Your task to perform on an android device: uninstall "Google Sheets" Image 0: 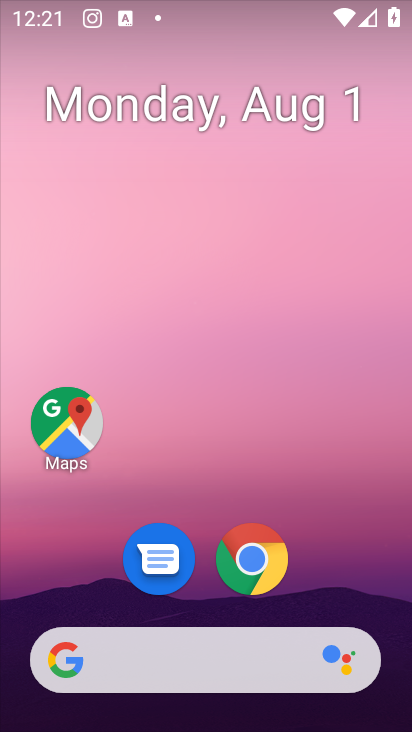
Step 0: drag from (83, 572) to (125, 140)
Your task to perform on an android device: uninstall "Google Sheets" Image 1: 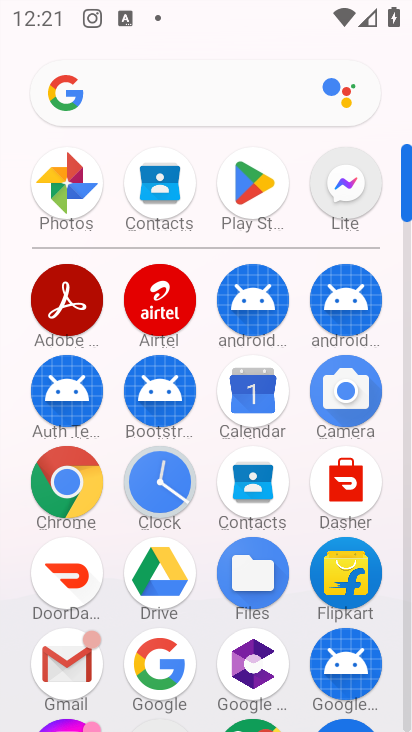
Step 1: click (271, 187)
Your task to perform on an android device: uninstall "Google Sheets" Image 2: 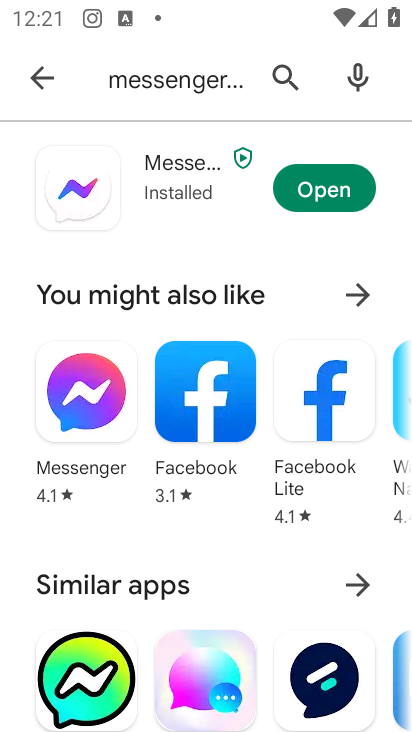
Step 2: click (299, 67)
Your task to perform on an android device: uninstall "Google Sheets" Image 3: 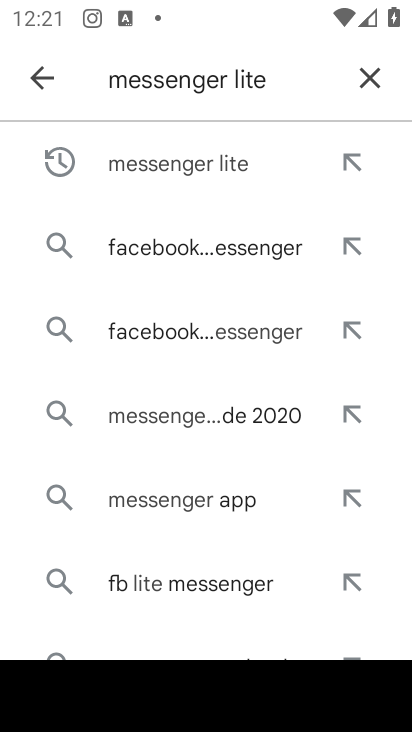
Step 3: click (380, 79)
Your task to perform on an android device: uninstall "Google Sheets" Image 4: 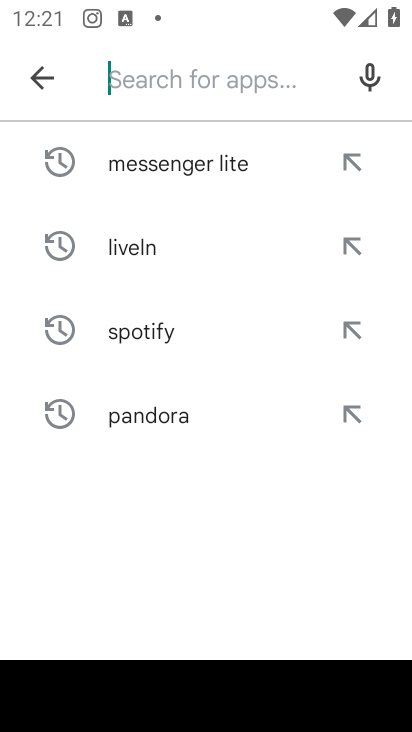
Step 4: click (163, 75)
Your task to perform on an android device: uninstall "Google Sheets" Image 5: 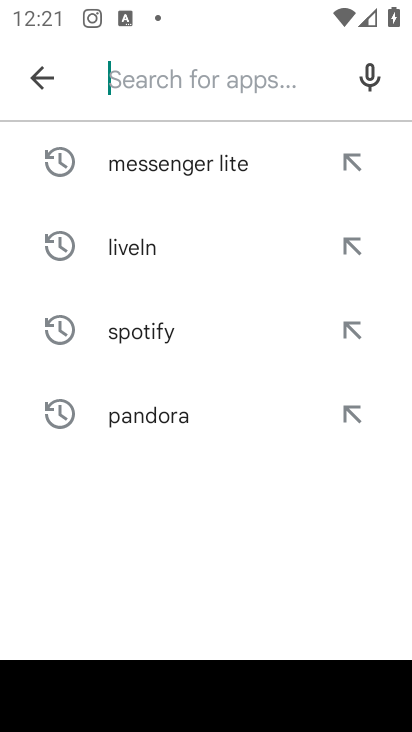
Step 5: type "google sheets"
Your task to perform on an android device: uninstall "Google Sheets" Image 6: 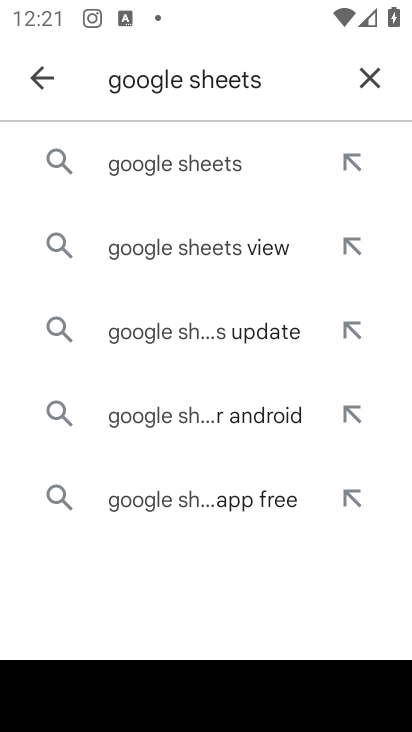
Step 6: click (134, 156)
Your task to perform on an android device: uninstall "Google Sheets" Image 7: 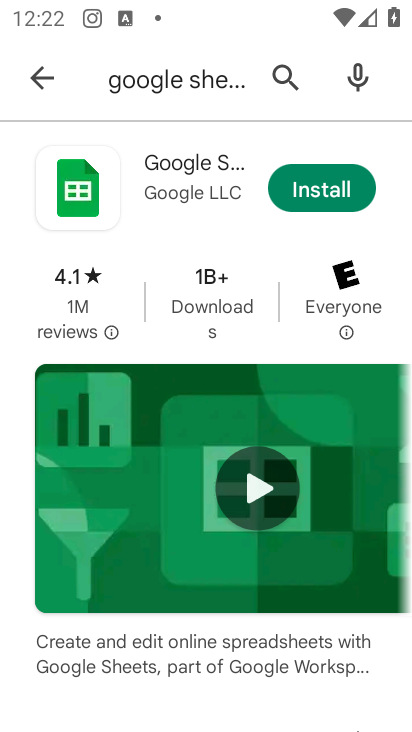
Step 7: task complete